Your task to perform on an android device: Open Yahoo.com Image 0: 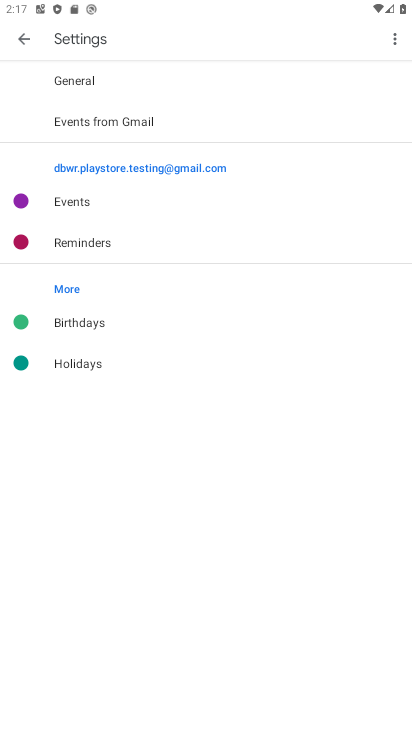
Step 0: press home button
Your task to perform on an android device: Open Yahoo.com Image 1: 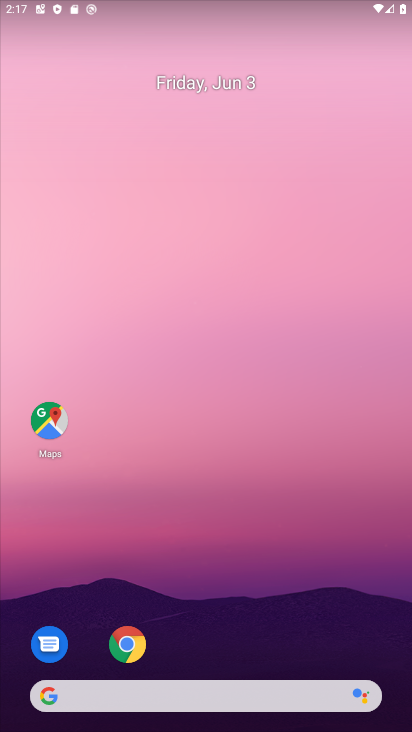
Step 1: click (135, 650)
Your task to perform on an android device: Open Yahoo.com Image 2: 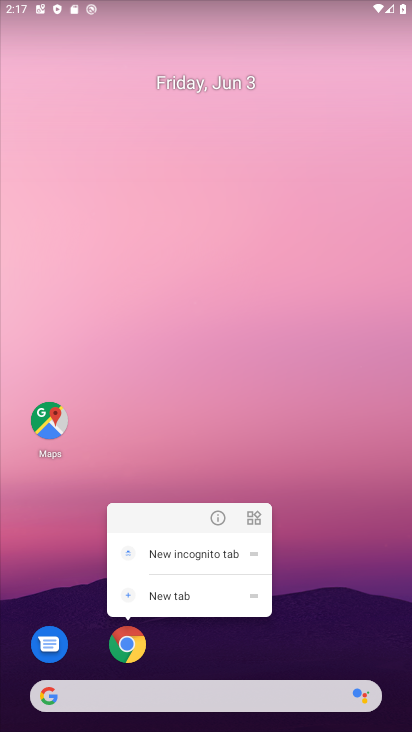
Step 2: click (135, 633)
Your task to perform on an android device: Open Yahoo.com Image 3: 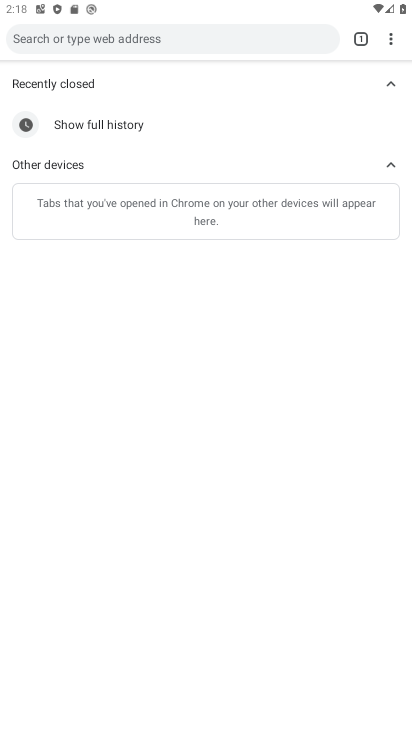
Step 3: click (359, 44)
Your task to perform on an android device: Open Yahoo.com Image 4: 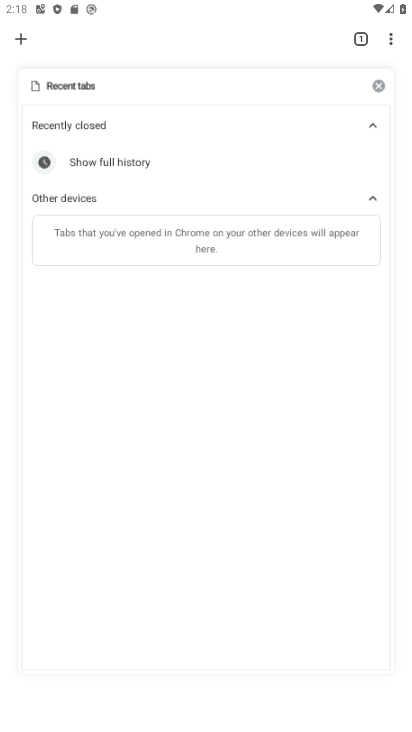
Step 4: click (27, 45)
Your task to perform on an android device: Open Yahoo.com Image 5: 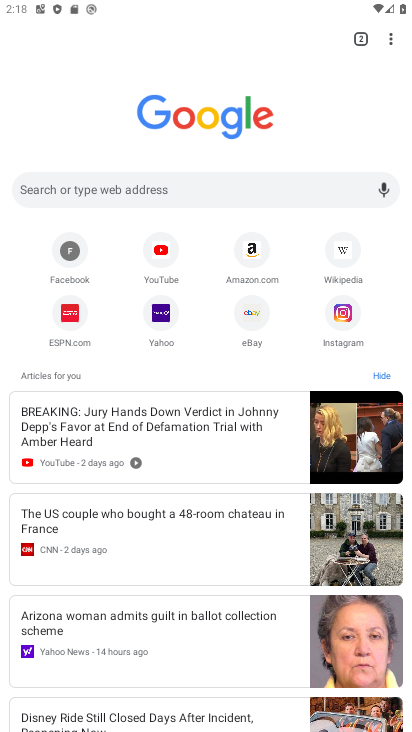
Step 5: drag from (312, 341) to (179, 389)
Your task to perform on an android device: Open Yahoo.com Image 6: 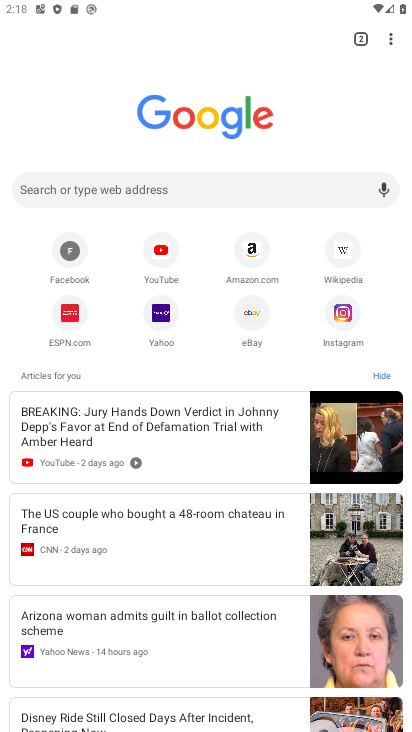
Step 6: click (157, 321)
Your task to perform on an android device: Open Yahoo.com Image 7: 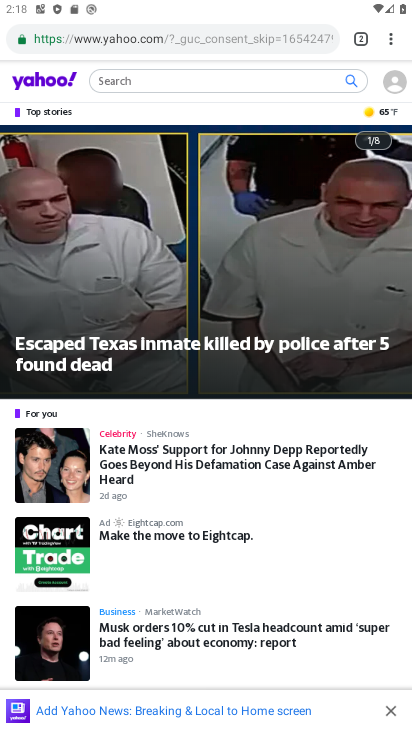
Step 7: task complete